Your task to perform on an android device: Go to battery settings Image 0: 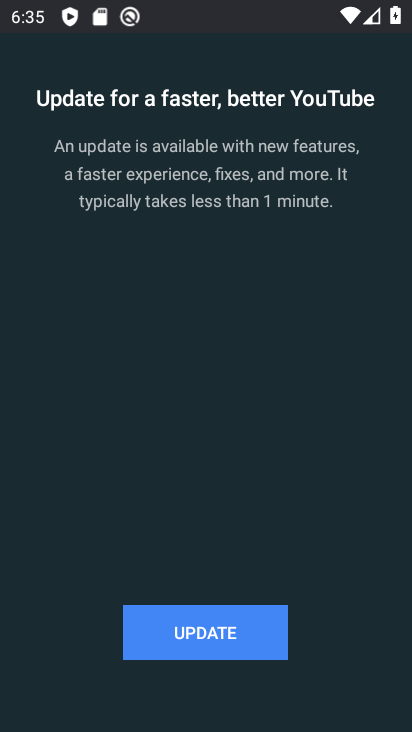
Step 0: press home button
Your task to perform on an android device: Go to battery settings Image 1: 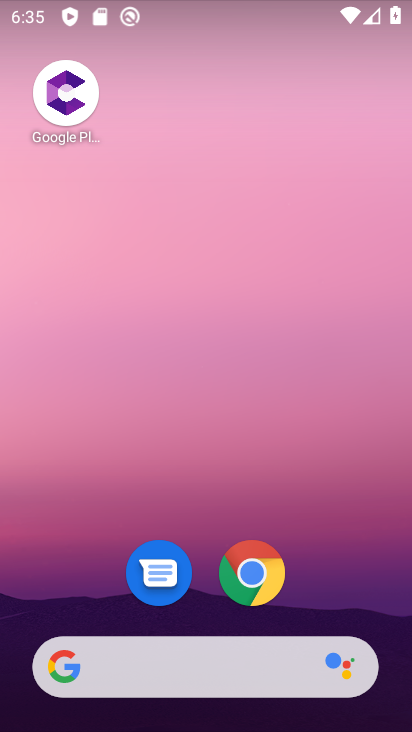
Step 1: drag from (365, 577) to (262, 22)
Your task to perform on an android device: Go to battery settings Image 2: 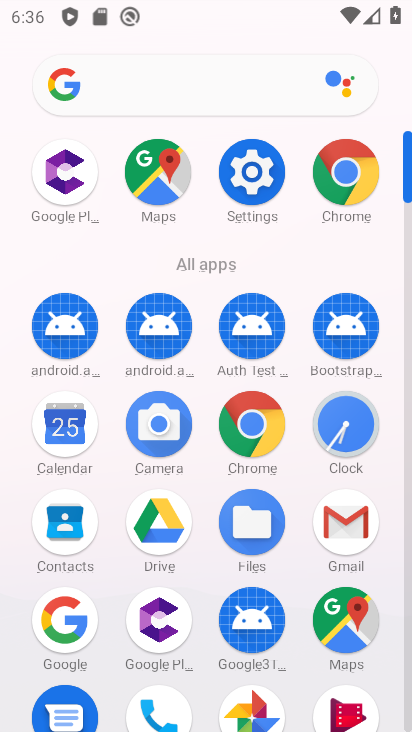
Step 2: click (248, 193)
Your task to perform on an android device: Go to battery settings Image 3: 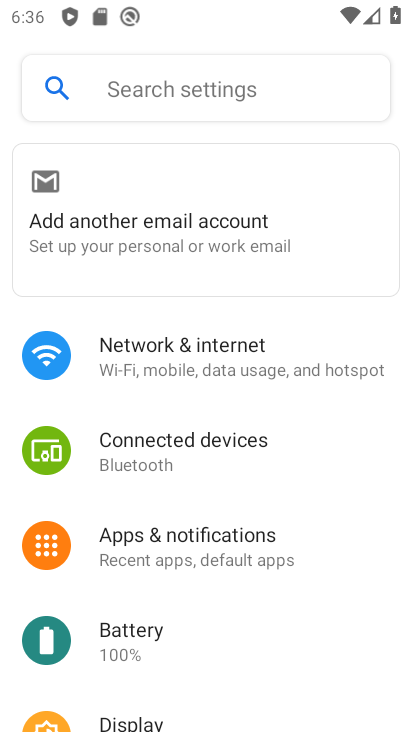
Step 3: click (227, 640)
Your task to perform on an android device: Go to battery settings Image 4: 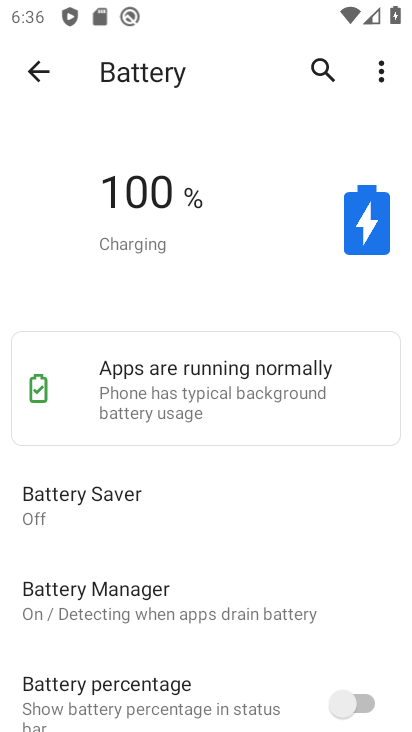
Step 4: click (376, 74)
Your task to perform on an android device: Go to battery settings Image 5: 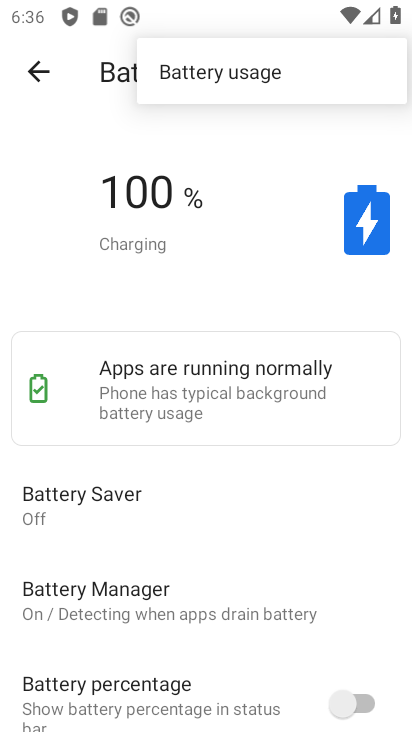
Step 5: task complete